Your task to perform on an android device: open sync settings in chrome Image 0: 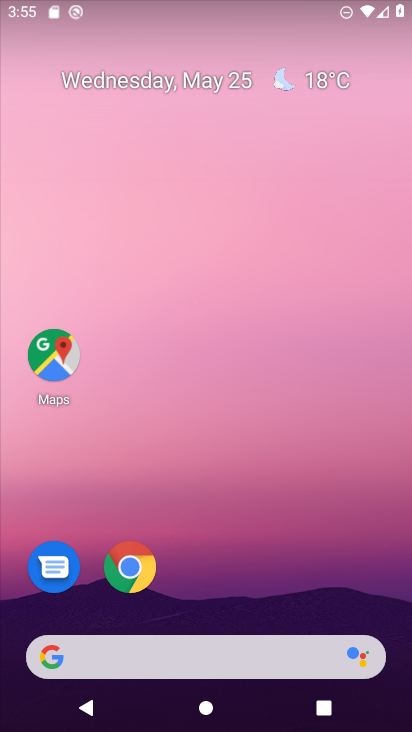
Step 0: drag from (363, 591) to (355, 237)
Your task to perform on an android device: open sync settings in chrome Image 1: 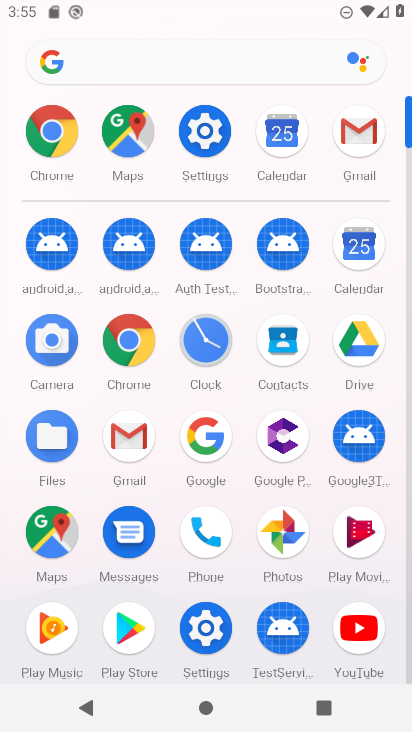
Step 1: click (141, 353)
Your task to perform on an android device: open sync settings in chrome Image 2: 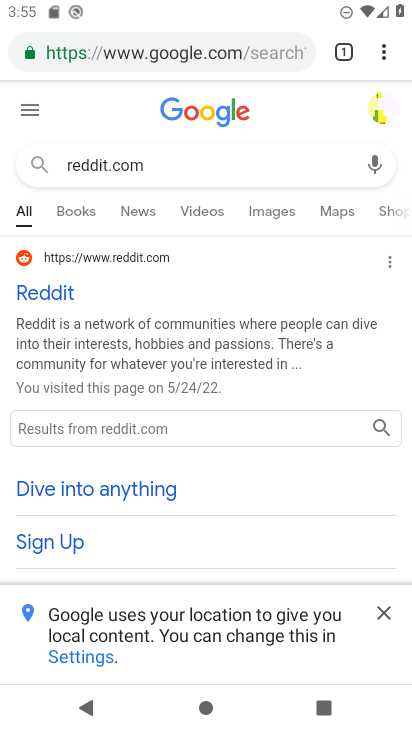
Step 2: click (382, 60)
Your task to perform on an android device: open sync settings in chrome Image 3: 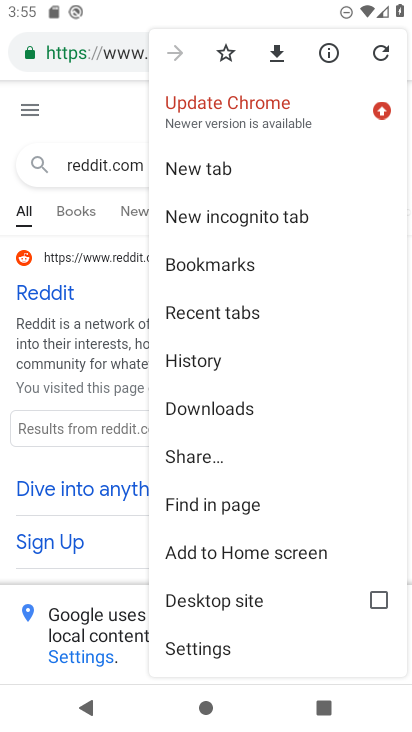
Step 3: click (236, 652)
Your task to perform on an android device: open sync settings in chrome Image 4: 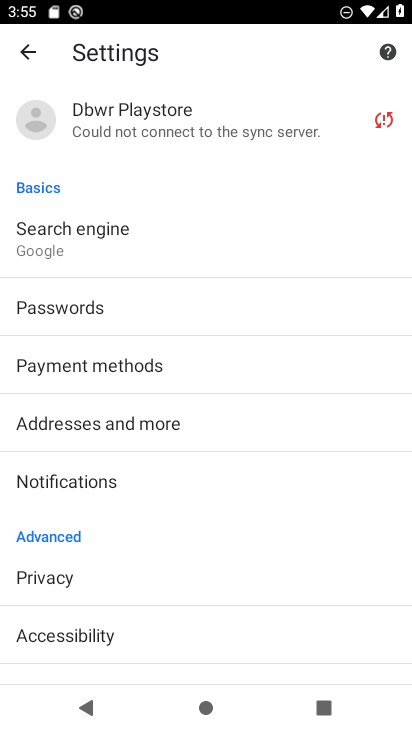
Step 4: drag from (250, 600) to (247, 481)
Your task to perform on an android device: open sync settings in chrome Image 5: 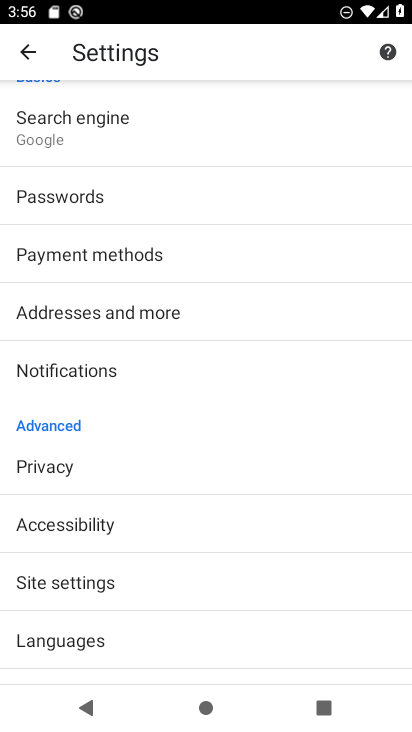
Step 5: drag from (261, 535) to (269, 420)
Your task to perform on an android device: open sync settings in chrome Image 6: 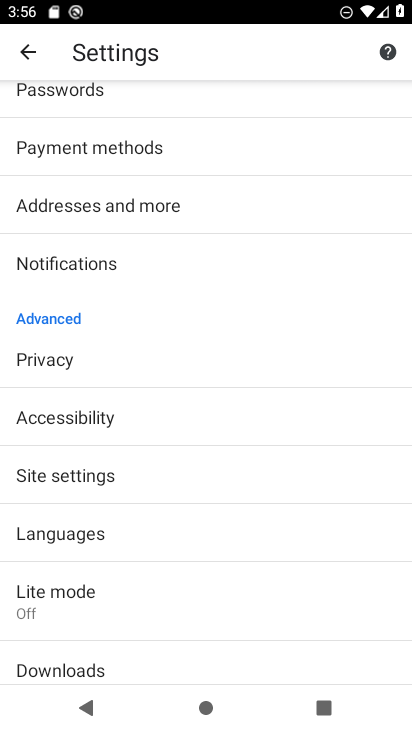
Step 6: drag from (283, 571) to (282, 469)
Your task to perform on an android device: open sync settings in chrome Image 7: 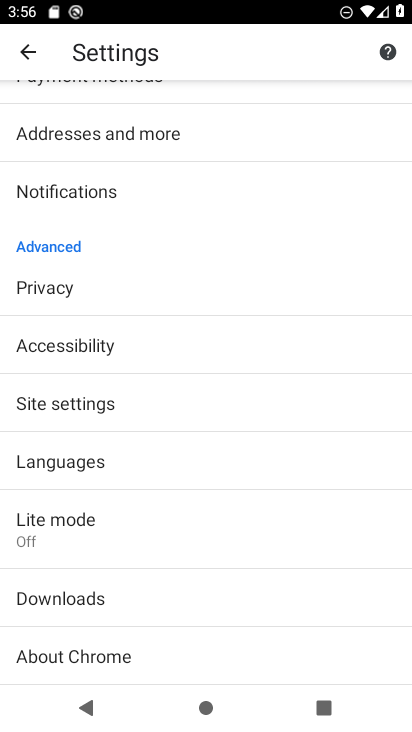
Step 7: drag from (269, 613) to (265, 515)
Your task to perform on an android device: open sync settings in chrome Image 8: 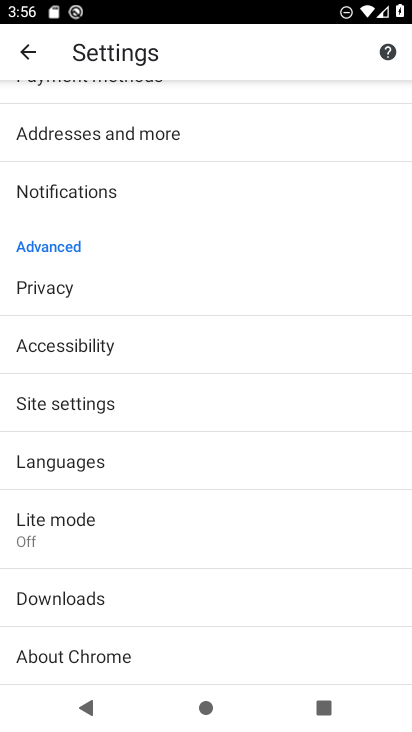
Step 8: drag from (283, 399) to (280, 482)
Your task to perform on an android device: open sync settings in chrome Image 9: 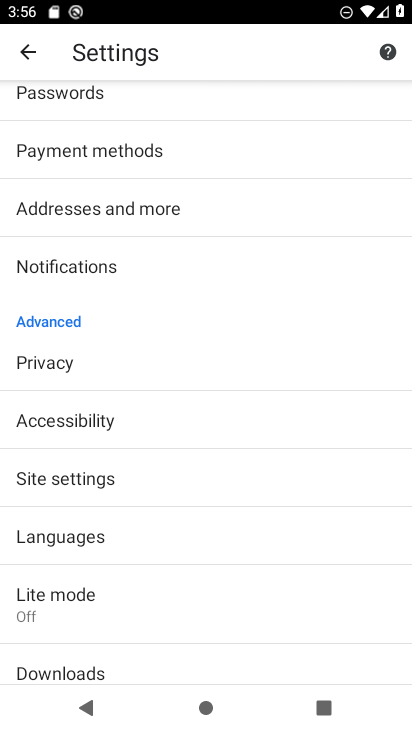
Step 9: click (269, 475)
Your task to perform on an android device: open sync settings in chrome Image 10: 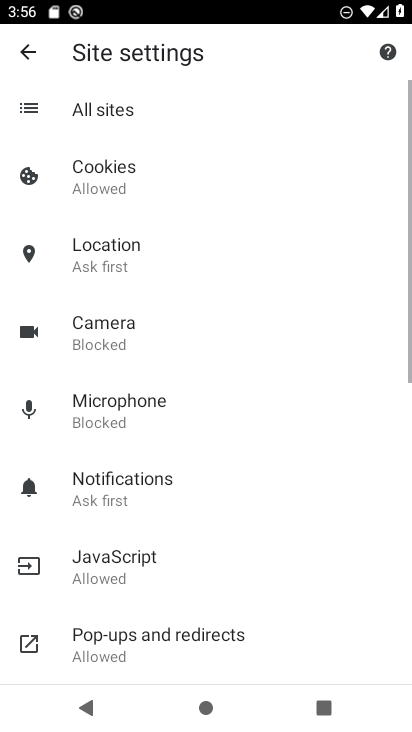
Step 10: drag from (276, 547) to (276, 489)
Your task to perform on an android device: open sync settings in chrome Image 11: 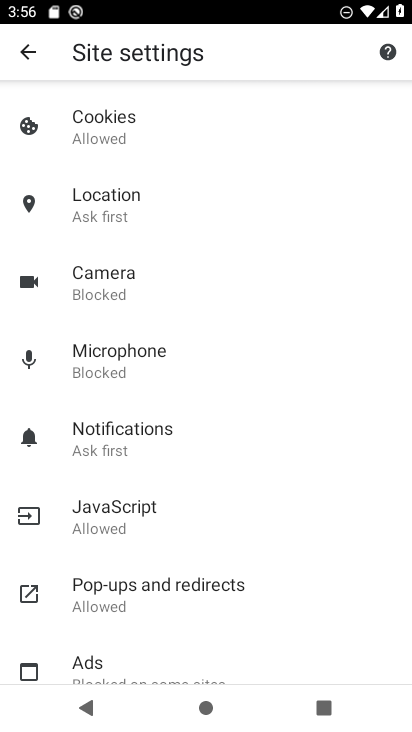
Step 11: drag from (294, 585) to (301, 516)
Your task to perform on an android device: open sync settings in chrome Image 12: 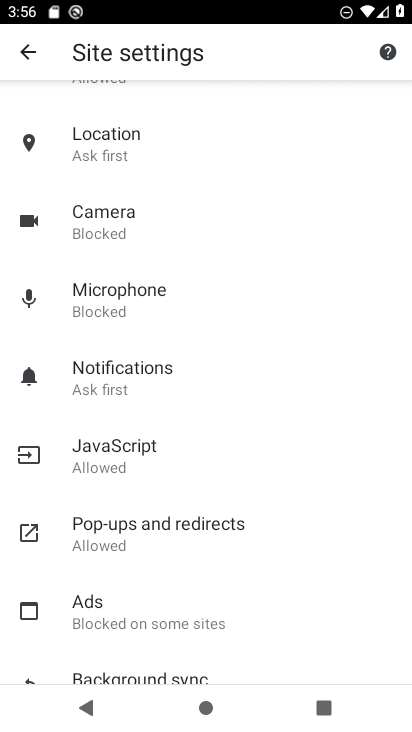
Step 12: drag from (337, 587) to (332, 517)
Your task to perform on an android device: open sync settings in chrome Image 13: 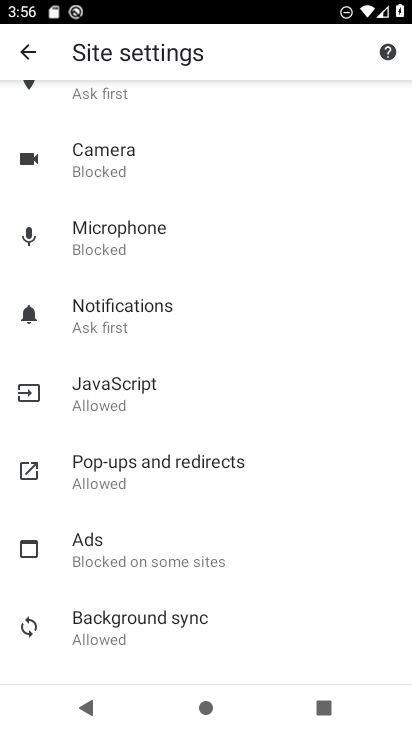
Step 13: drag from (348, 610) to (350, 516)
Your task to perform on an android device: open sync settings in chrome Image 14: 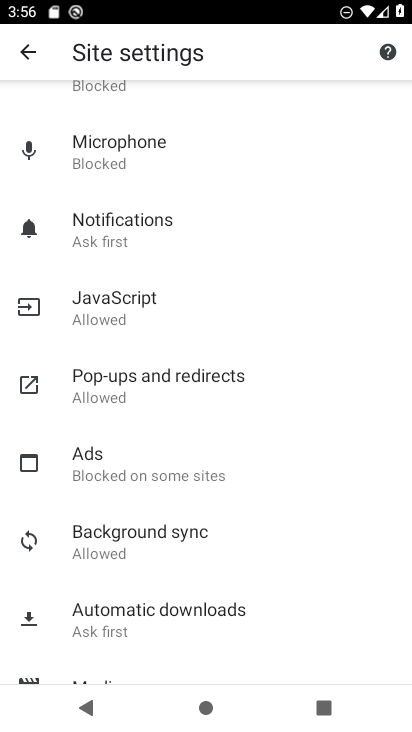
Step 14: drag from (339, 593) to (335, 524)
Your task to perform on an android device: open sync settings in chrome Image 15: 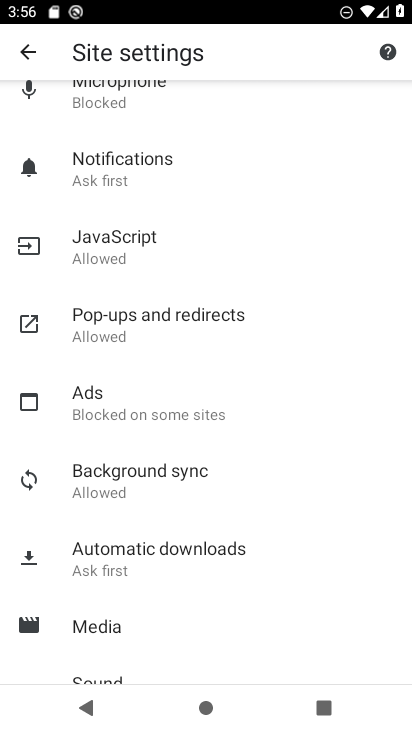
Step 15: click (211, 497)
Your task to perform on an android device: open sync settings in chrome Image 16: 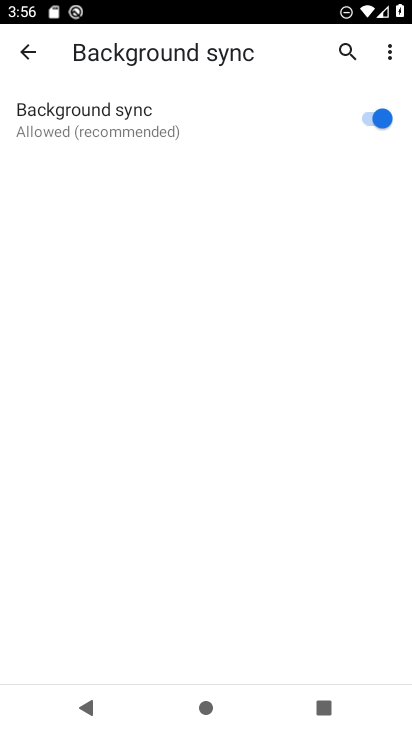
Step 16: task complete